Your task to perform on an android device: Turn on the flashlight Image 0: 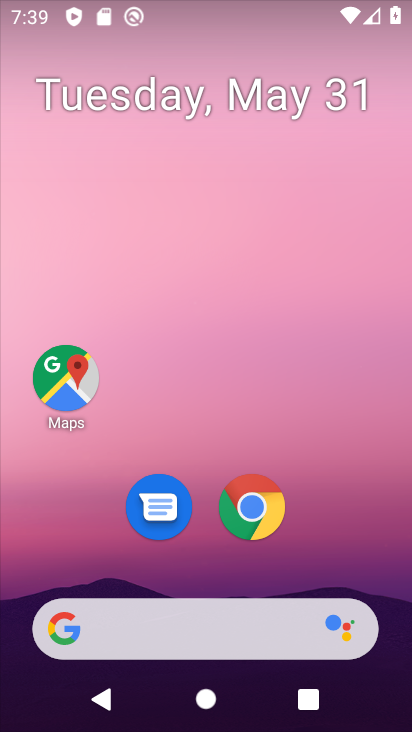
Step 0: click (248, 507)
Your task to perform on an android device: Turn on the flashlight Image 1: 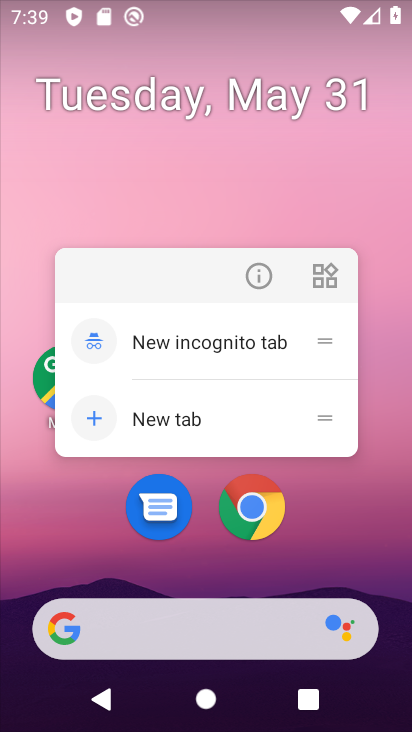
Step 1: click (248, 507)
Your task to perform on an android device: Turn on the flashlight Image 2: 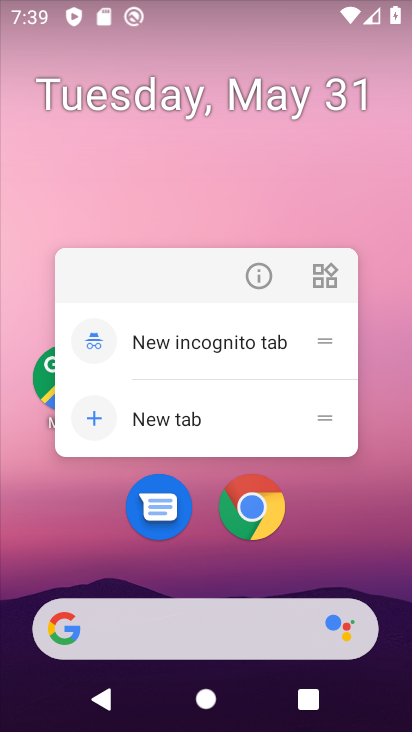
Step 2: click (299, 513)
Your task to perform on an android device: Turn on the flashlight Image 3: 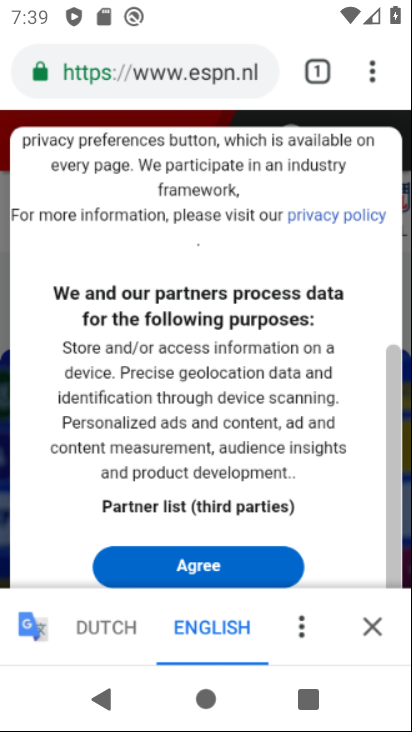
Step 3: drag from (312, 569) to (312, 406)
Your task to perform on an android device: Turn on the flashlight Image 4: 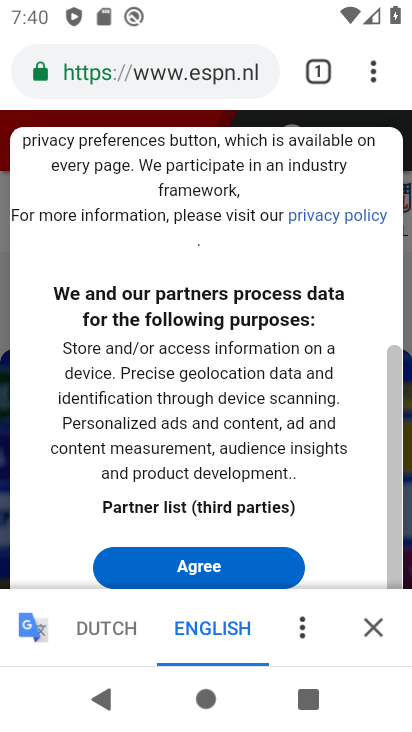
Step 4: press home button
Your task to perform on an android device: Turn on the flashlight Image 5: 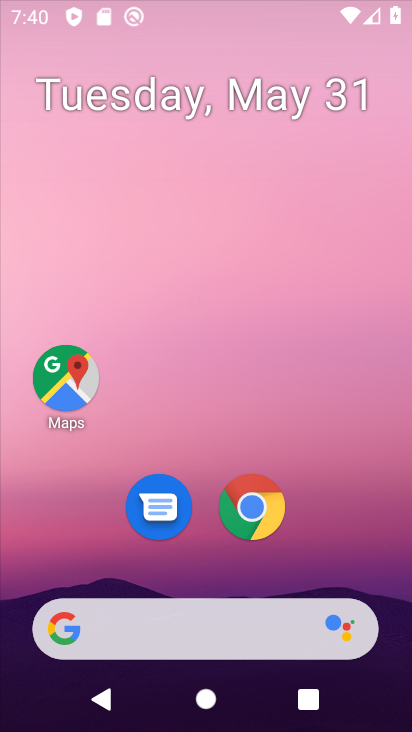
Step 5: drag from (351, 523) to (315, 230)
Your task to perform on an android device: Turn on the flashlight Image 6: 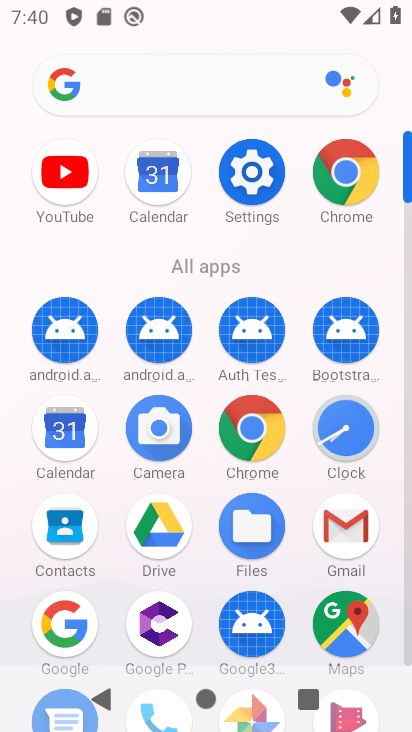
Step 6: drag from (299, 569) to (271, 244)
Your task to perform on an android device: Turn on the flashlight Image 7: 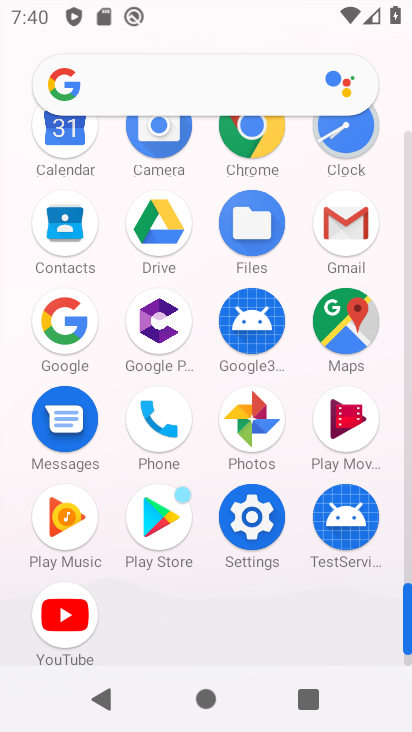
Step 7: click (268, 531)
Your task to perform on an android device: Turn on the flashlight Image 8: 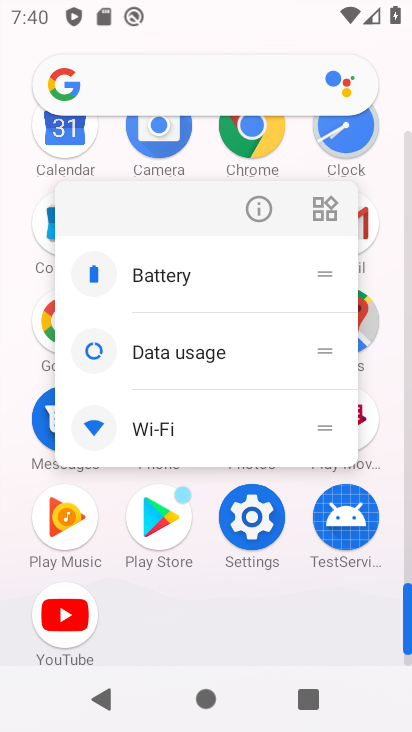
Step 8: click (257, 515)
Your task to perform on an android device: Turn on the flashlight Image 9: 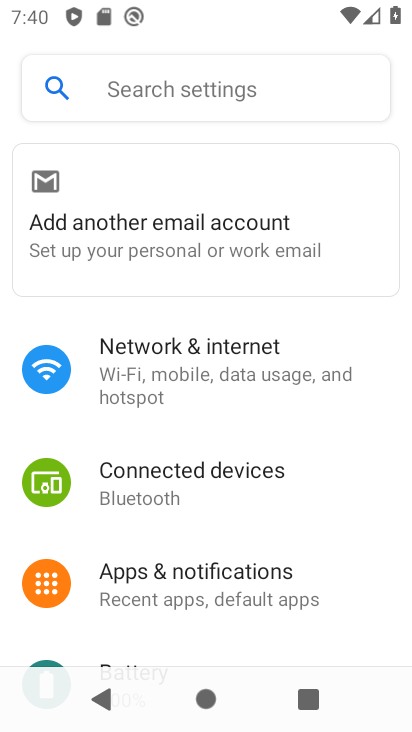
Step 9: drag from (149, 545) to (183, 359)
Your task to perform on an android device: Turn on the flashlight Image 10: 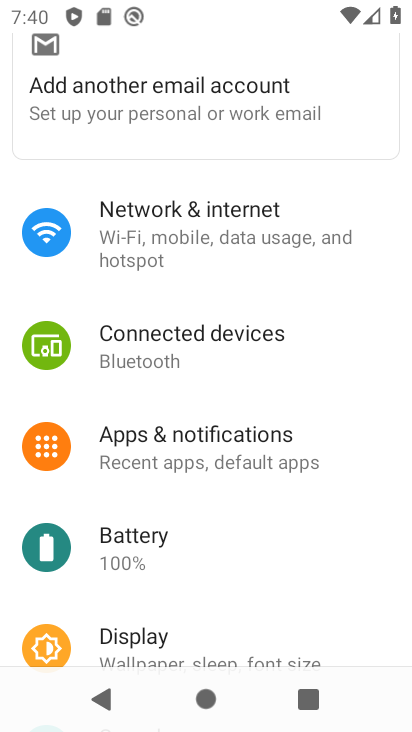
Step 10: click (183, 329)
Your task to perform on an android device: Turn on the flashlight Image 11: 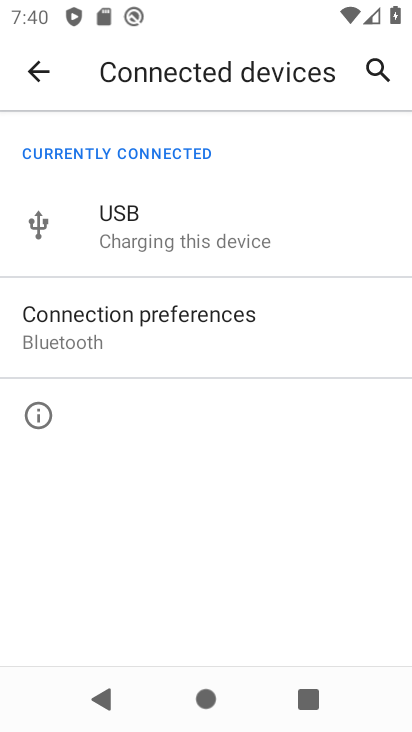
Step 11: click (35, 64)
Your task to perform on an android device: Turn on the flashlight Image 12: 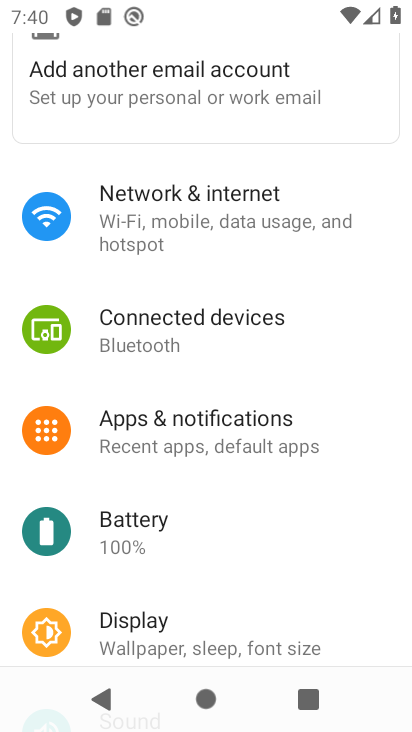
Step 12: click (201, 648)
Your task to perform on an android device: Turn on the flashlight Image 13: 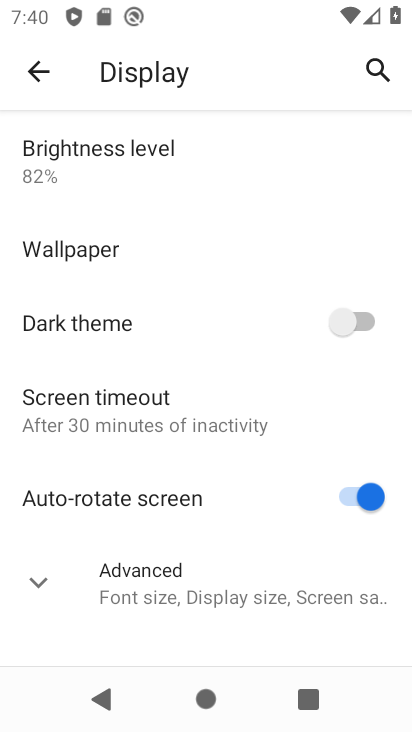
Step 13: click (179, 409)
Your task to perform on an android device: Turn on the flashlight Image 14: 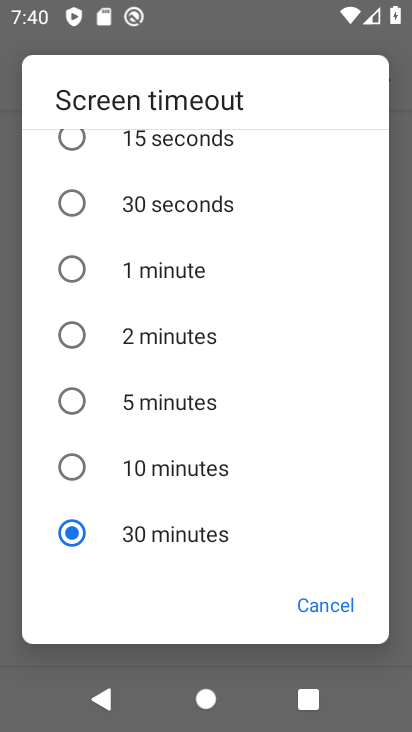
Step 14: task complete